Your task to perform on an android device: turn on improve location accuracy Image 0: 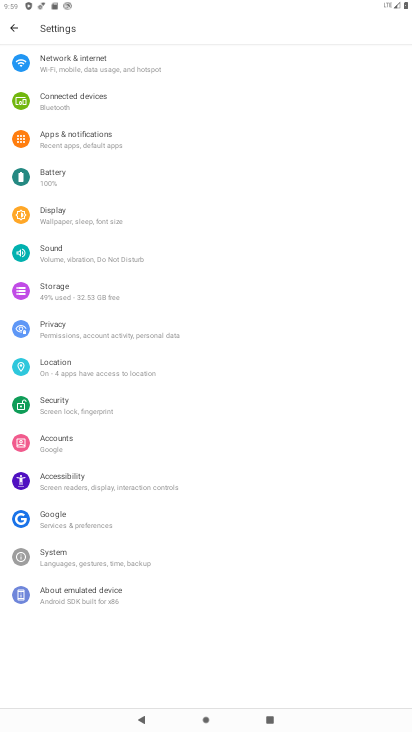
Step 0: click (67, 373)
Your task to perform on an android device: turn on improve location accuracy Image 1: 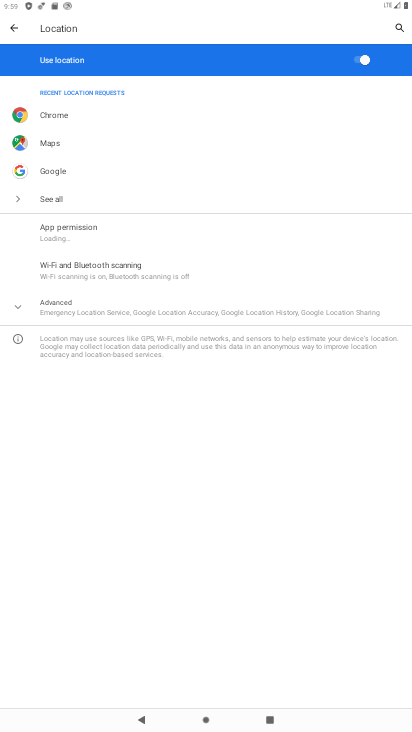
Step 1: click (55, 300)
Your task to perform on an android device: turn on improve location accuracy Image 2: 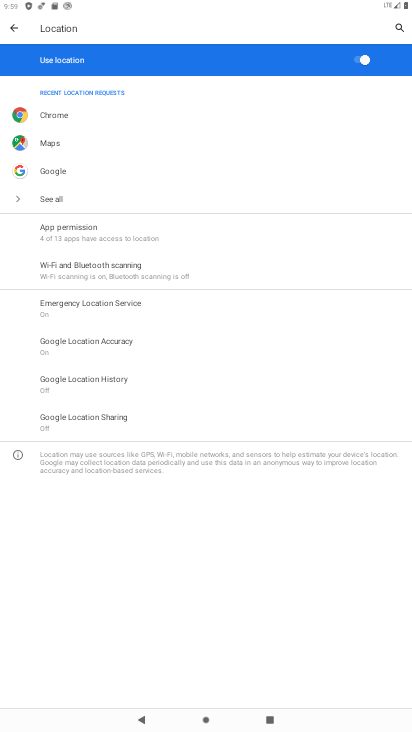
Step 2: click (106, 347)
Your task to perform on an android device: turn on improve location accuracy Image 3: 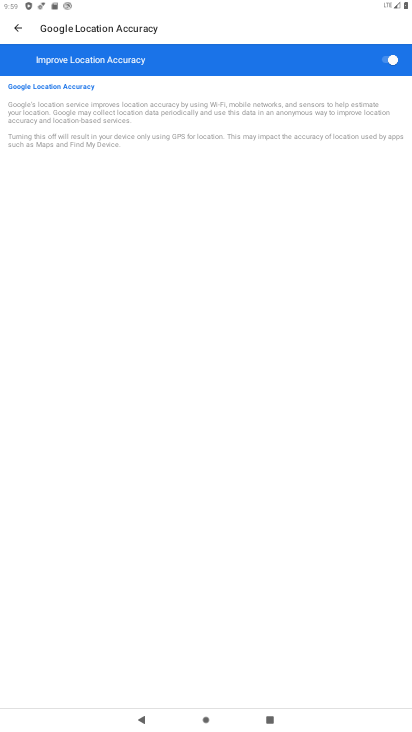
Step 3: task complete